Your task to perform on an android device: Search for 5 star sushi restaurants on Maps Image 0: 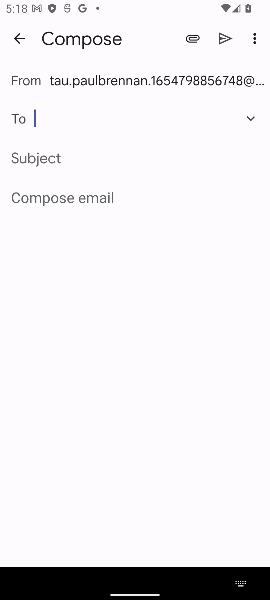
Step 0: press home button
Your task to perform on an android device: Search for 5 star sushi restaurants on Maps Image 1: 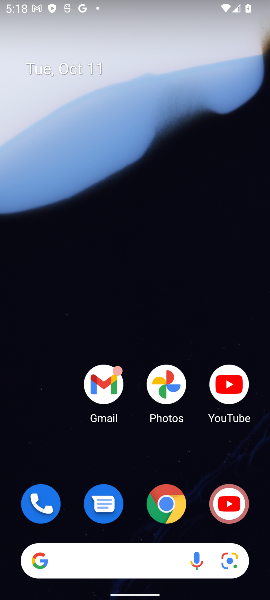
Step 1: drag from (157, 448) to (221, 93)
Your task to perform on an android device: Search for 5 star sushi restaurants on Maps Image 2: 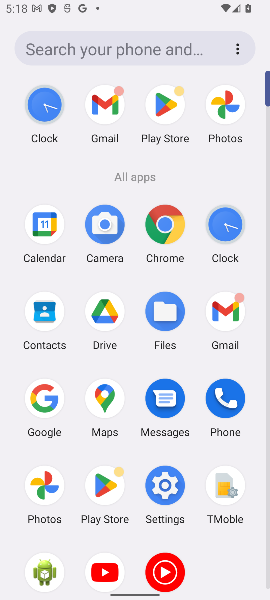
Step 2: click (101, 396)
Your task to perform on an android device: Search for 5 star sushi restaurants on Maps Image 3: 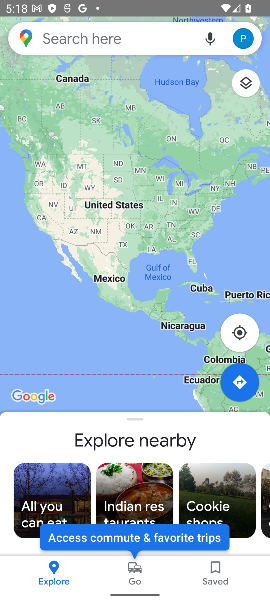
Step 3: click (80, 39)
Your task to perform on an android device: Search for 5 star sushi restaurants on Maps Image 4: 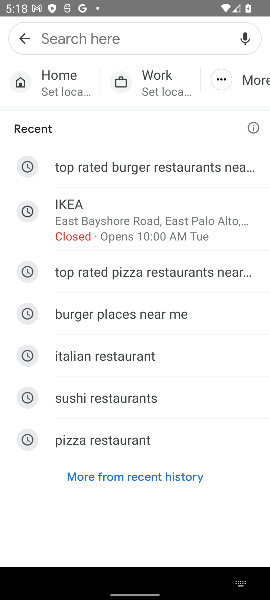
Step 4: click (103, 44)
Your task to perform on an android device: Search for 5 star sushi restaurants on Maps Image 5: 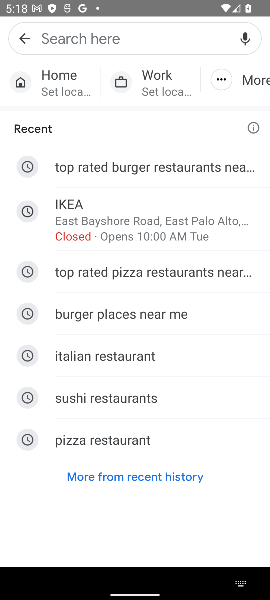
Step 5: type "5 star sushi restaurants"
Your task to perform on an android device: Search for 5 star sushi restaurants on Maps Image 6: 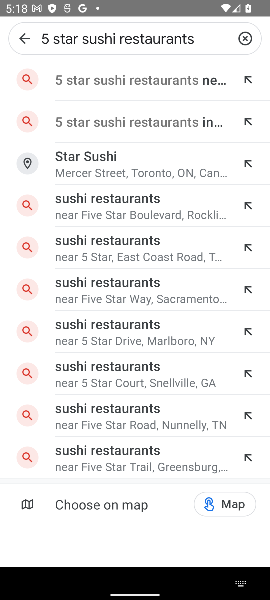
Step 6: click (119, 75)
Your task to perform on an android device: Search for 5 star sushi restaurants on Maps Image 7: 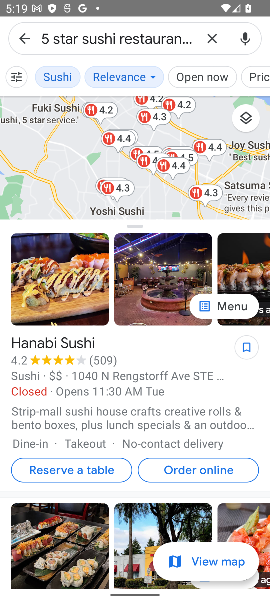
Step 7: task complete